Your task to perform on an android device: open app "Spotify: Music and Podcasts" (install if not already installed), go to login, and select forgot password Image 0: 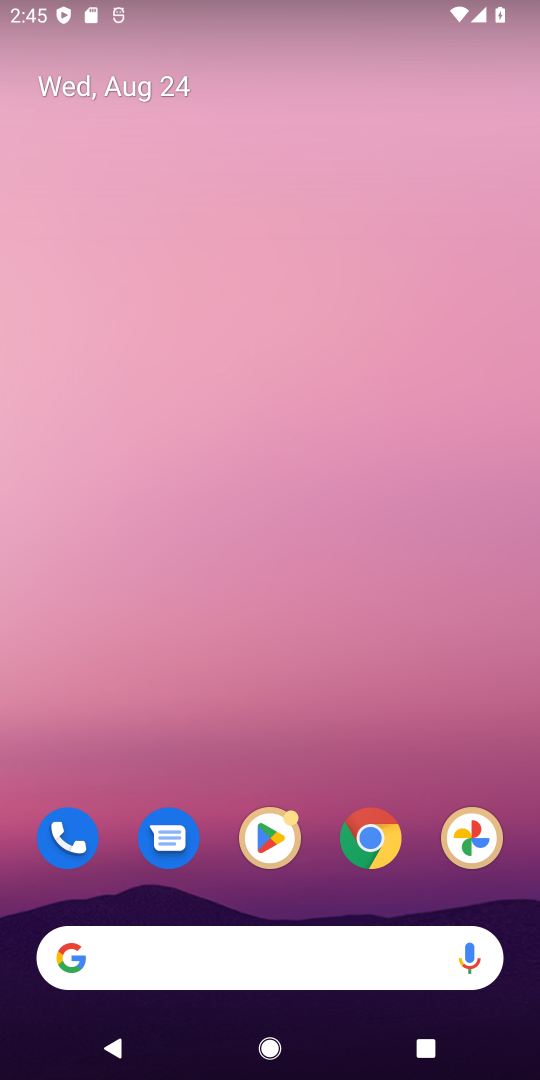
Step 0: press home button
Your task to perform on an android device: open app "Spotify: Music and Podcasts" (install if not already installed), go to login, and select forgot password Image 1: 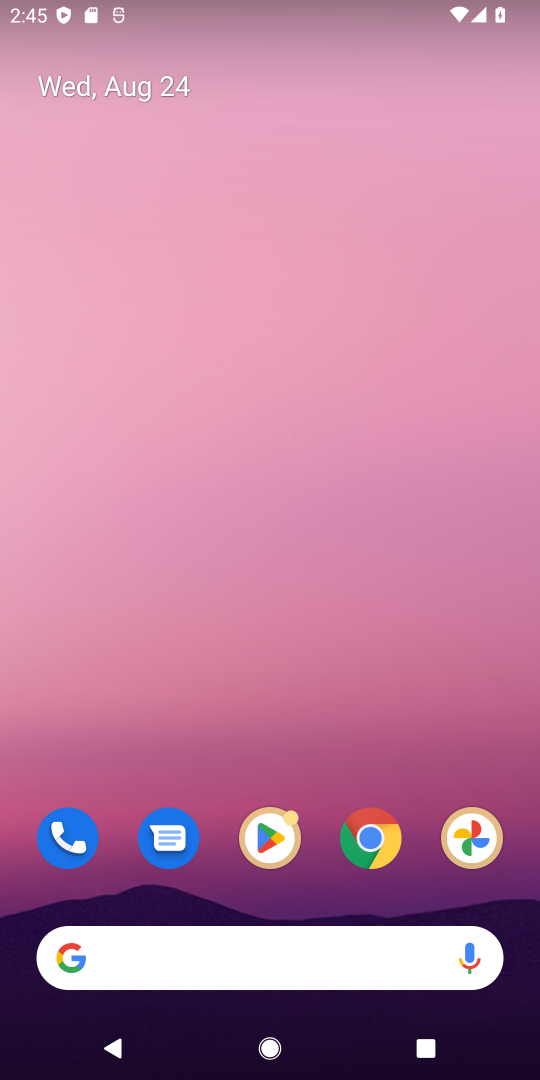
Step 1: drag from (412, 743) to (409, 115)
Your task to perform on an android device: open app "Spotify: Music and Podcasts" (install if not already installed), go to login, and select forgot password Image 2: 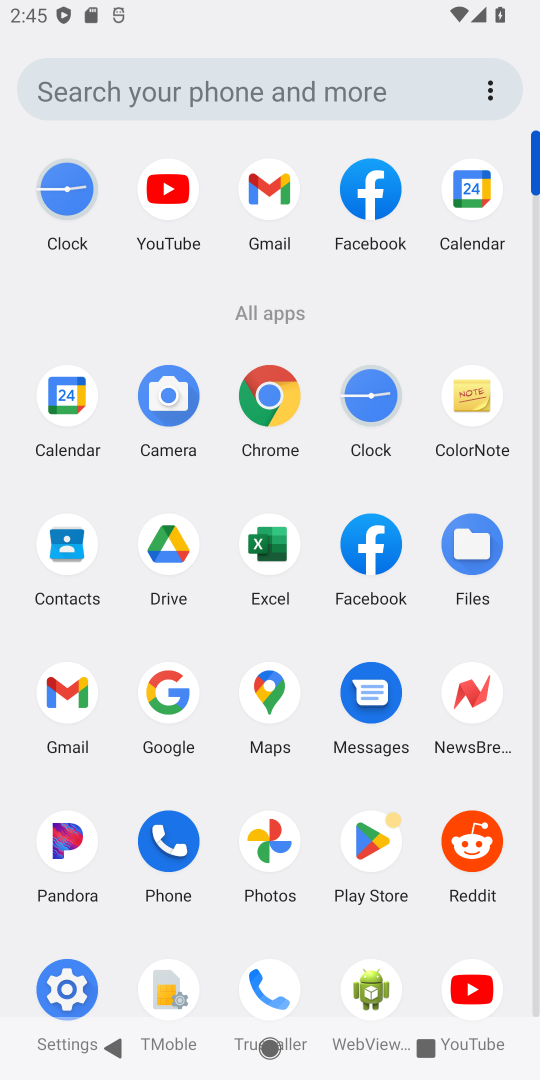
Step 2: click (375, 834)
Your task to perform on an android device: open app "Spotify: Music and Podcasts" (install if not already installed), go to login, and select forgot password Image 3: 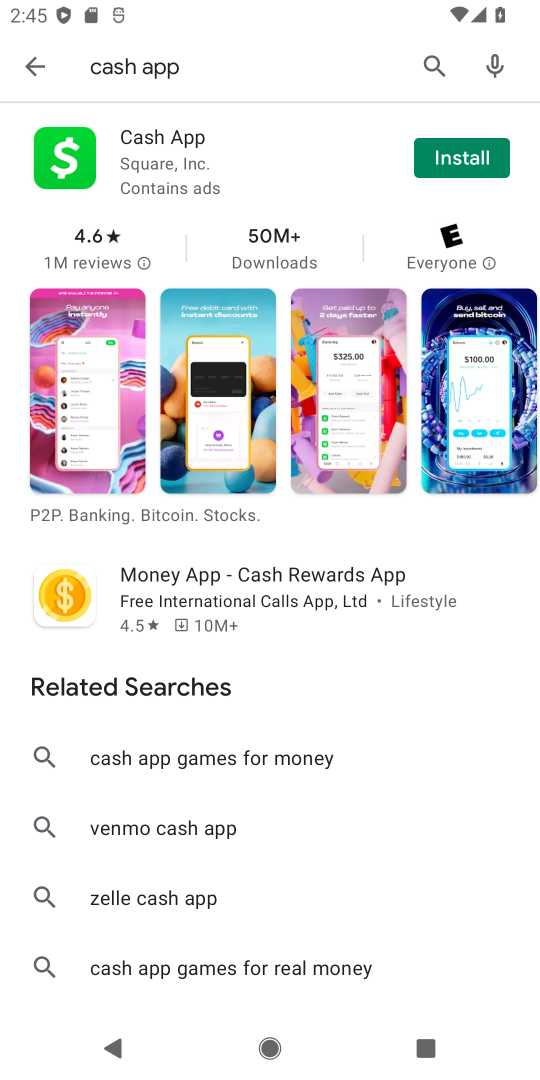
Step 3: press back button
Your task to perform on an android device: open app "Spotify: Music and Podcasts" (install if not already installed), go to login, and select forgot password Image 4: 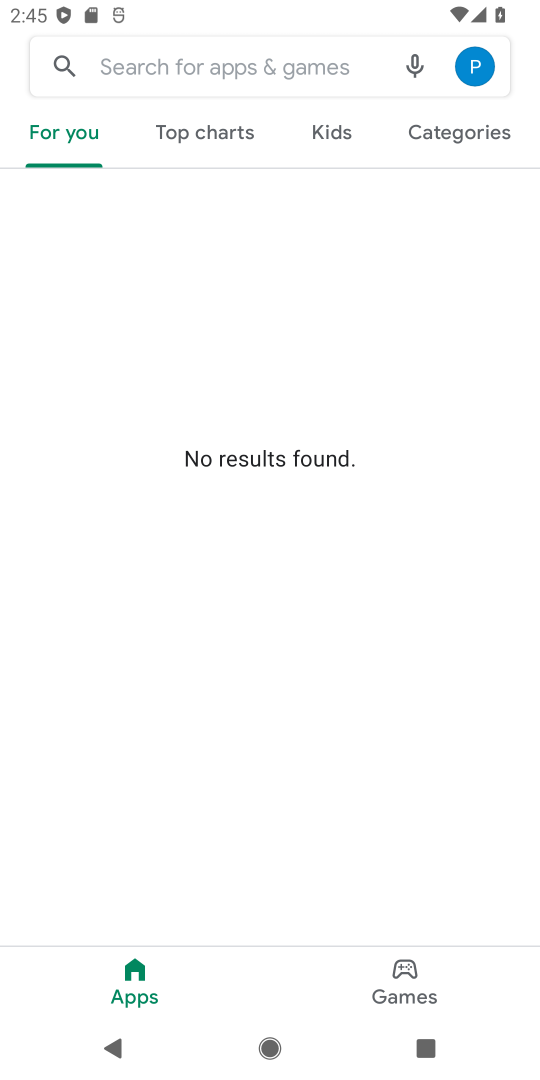
Step 4: click (248, 53)
Your task to perform on an android device: open app "Spotify: Music and Podcasts" (install if not already installed), go to login, and select forgot password Image 5: 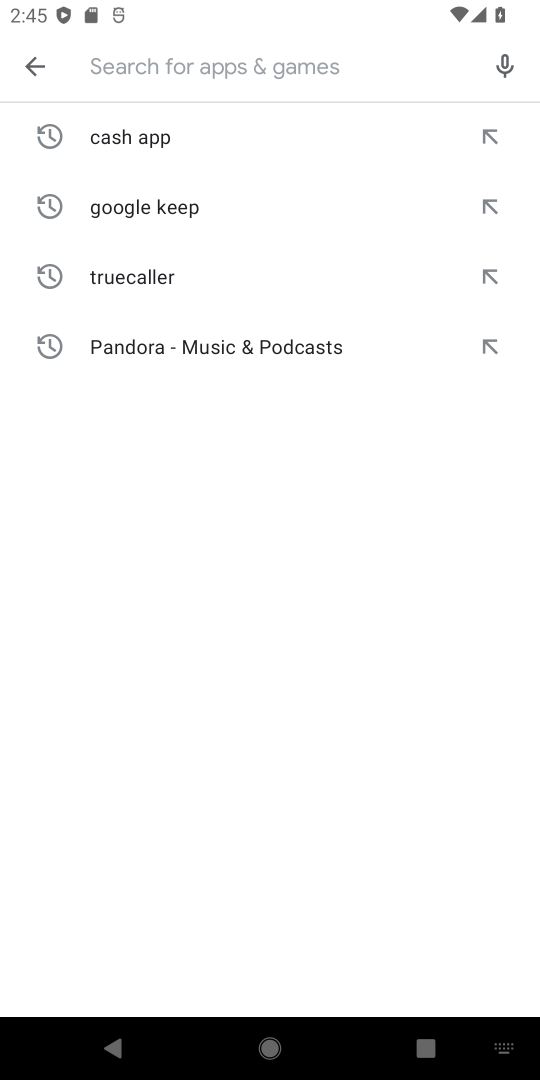
Step 5: type "Spotify: Music and Podcasts"
Your task to perform on an android device: open app "Spotify: Music and Podcasts" (install if not already installed), go to login, and select forgot password Image 6: 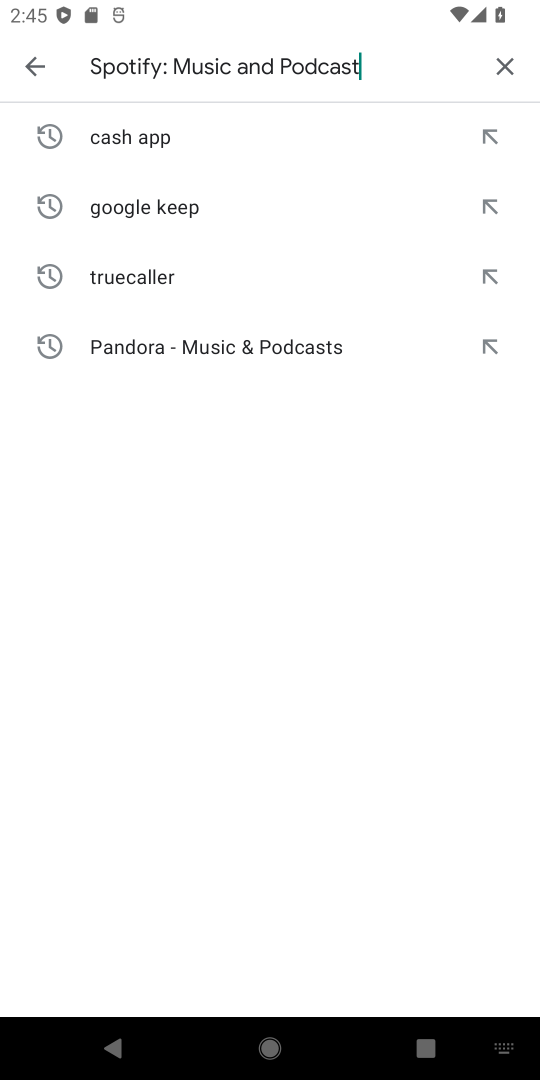
Step 6: press enter
Your task to perform on an android device: open app "Spotify: Music and Podcasts" (install if not already installed), go to login, and select forgot password Image 7: 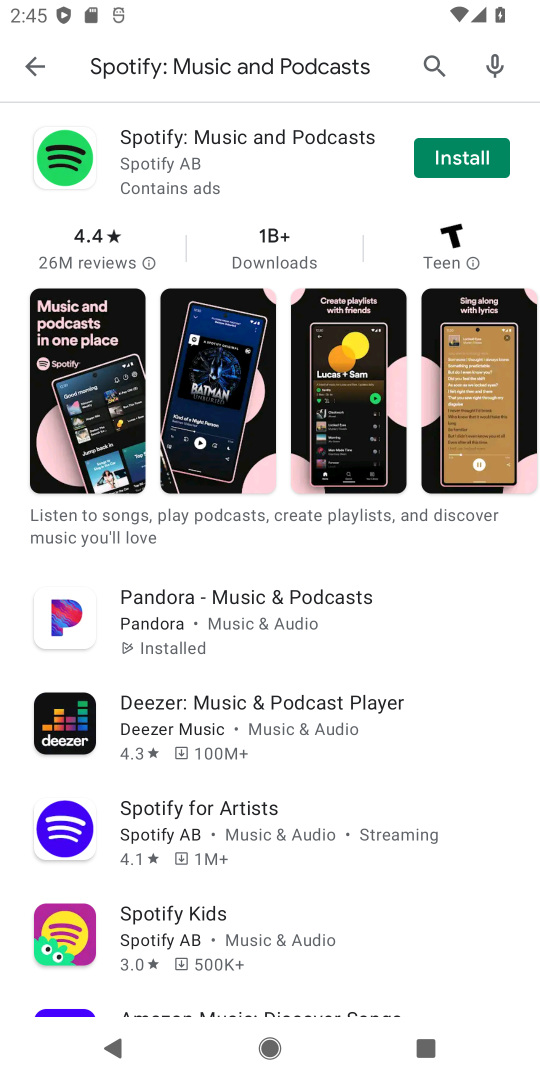
Step 7: click (464, 160)
Your task to perform on an android device: open app "Spotify: Music and Podcasts" (install if not already installed), go to login, and select forgot password Image 8: 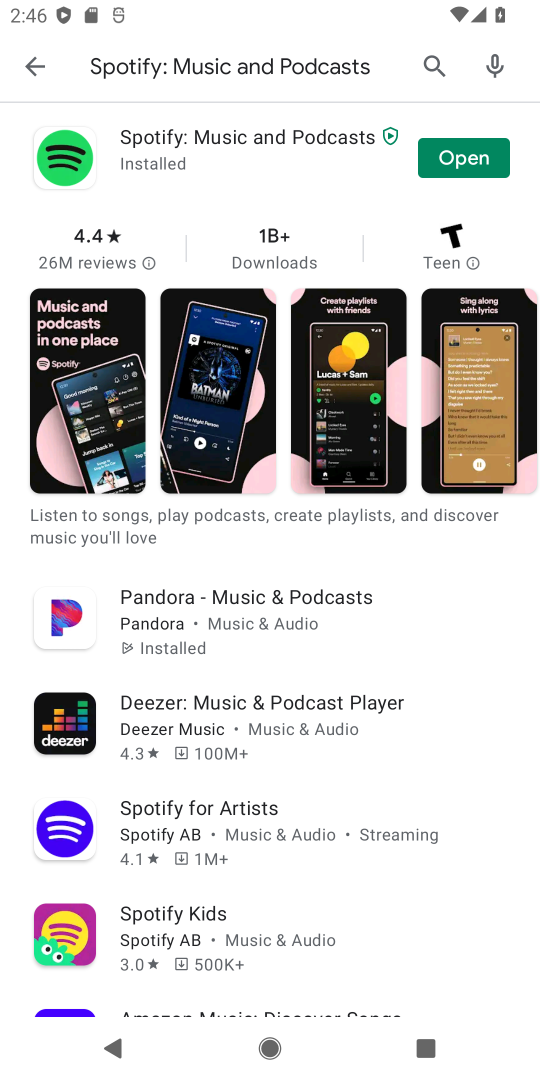
Step 8: click (467, 157)
Your task to perform on an android device: open app "Spotify: Music and Podcasts" (install if not already installed), go to login, and select forgot password Image 9: 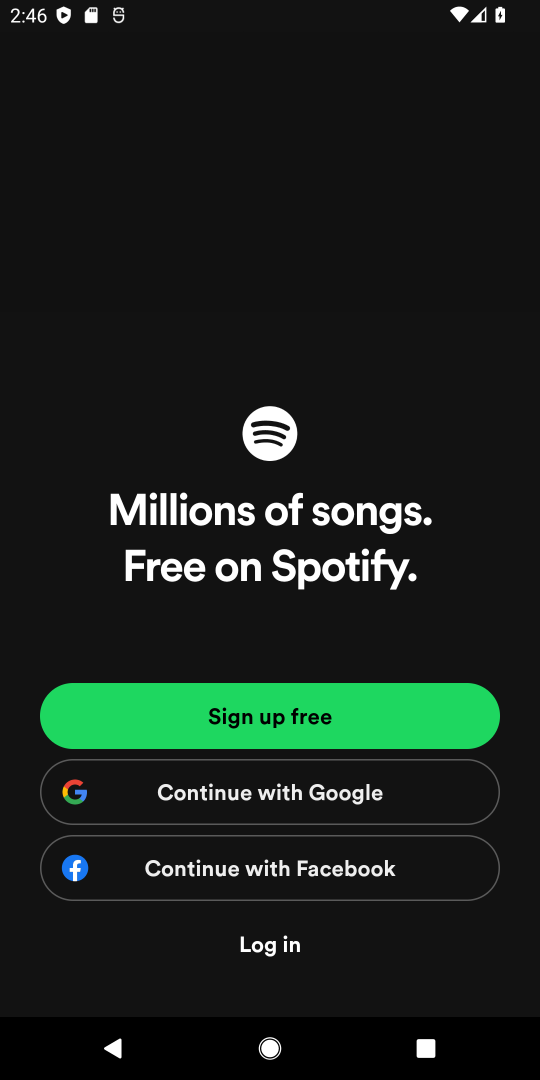
Step 9: click (291, 943)
Your task to perform on an android device: open app "Spotify: Music and Podcasts" (install if not already installed), go to login, and select forgot password Image 10: 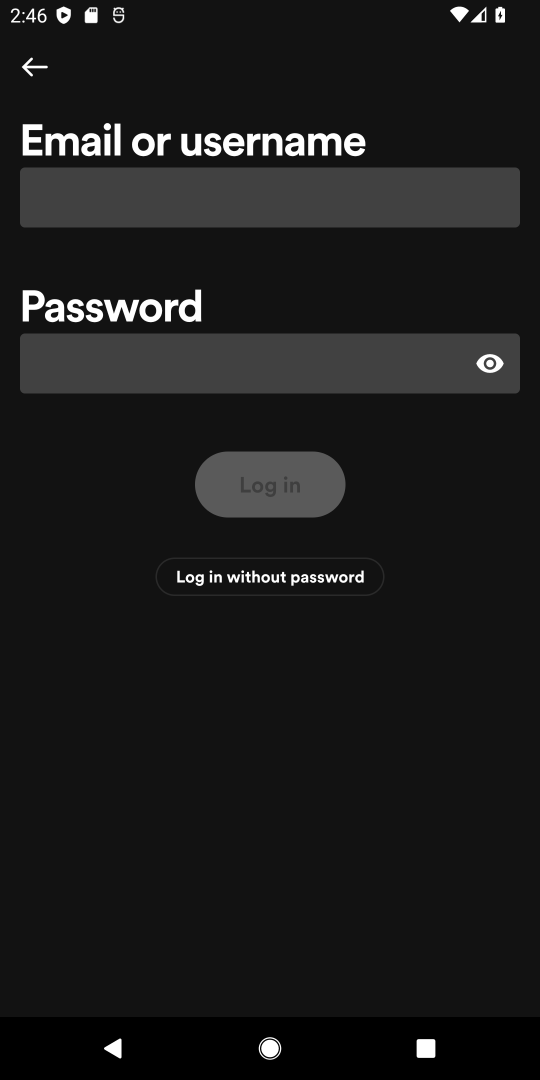
Step 10: task complete